Your task to perform on an android device: check data usage Image 0: 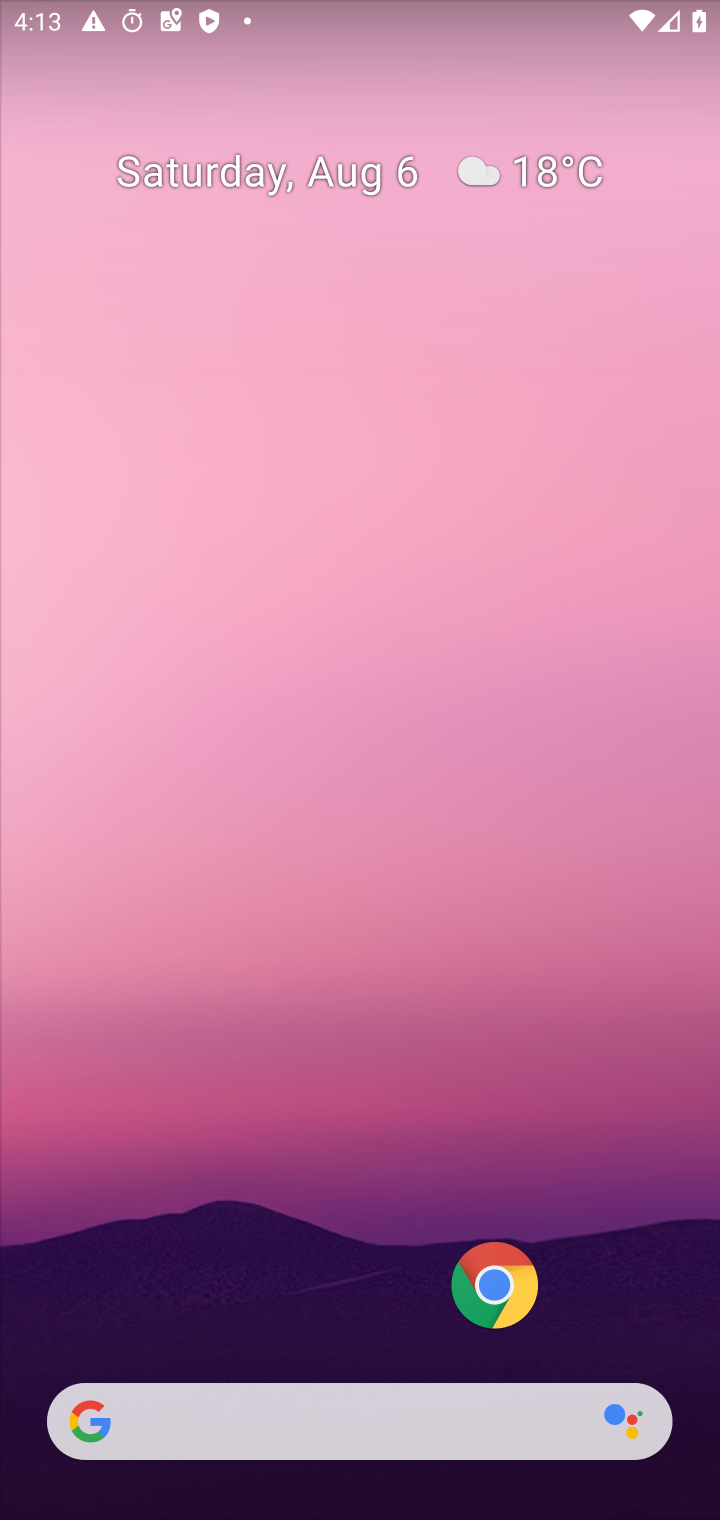
Step 0: drag from (312, 1330) to (200, 24)
Your task to perform on an android device: check data usage Image 1: 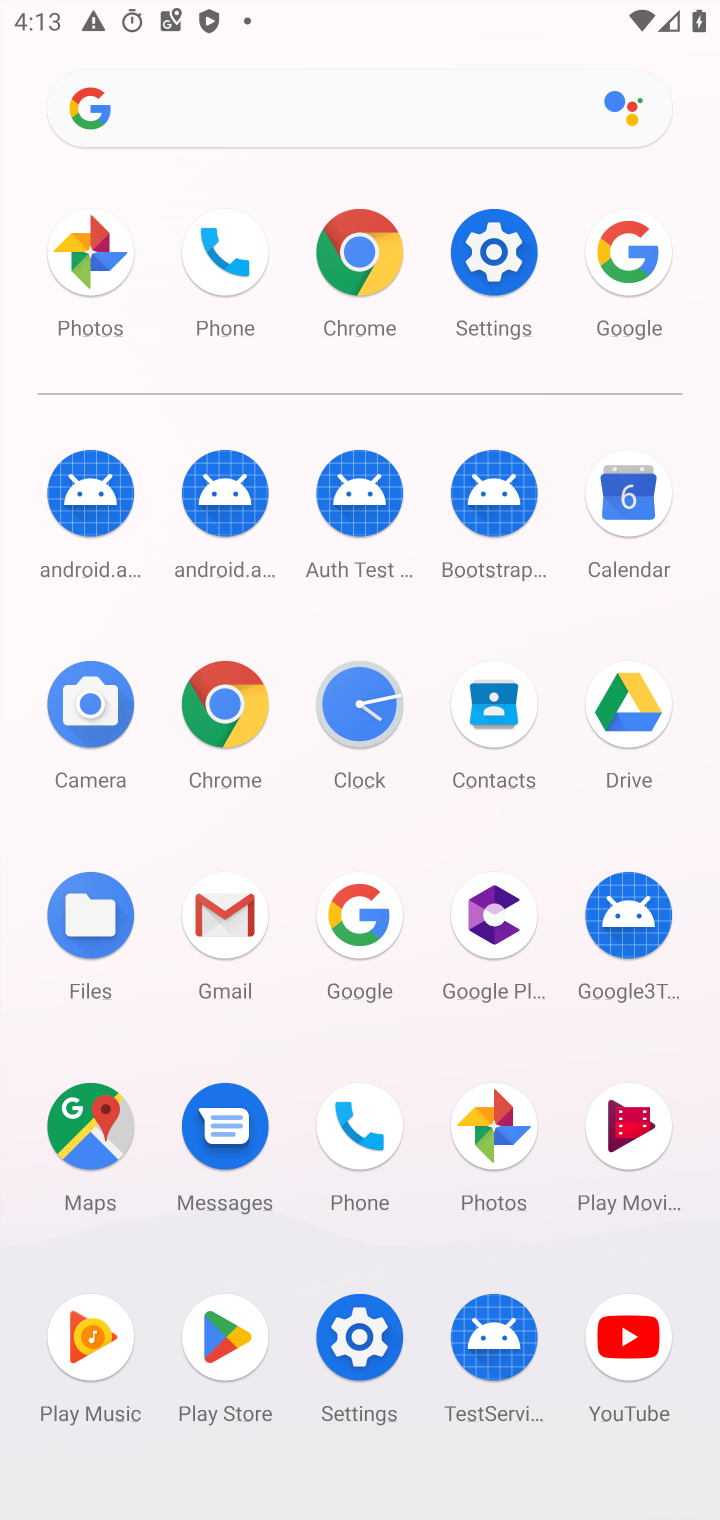
Step 1: click (490, 248)
Your task to perform on an android device: check data usage Image 2: 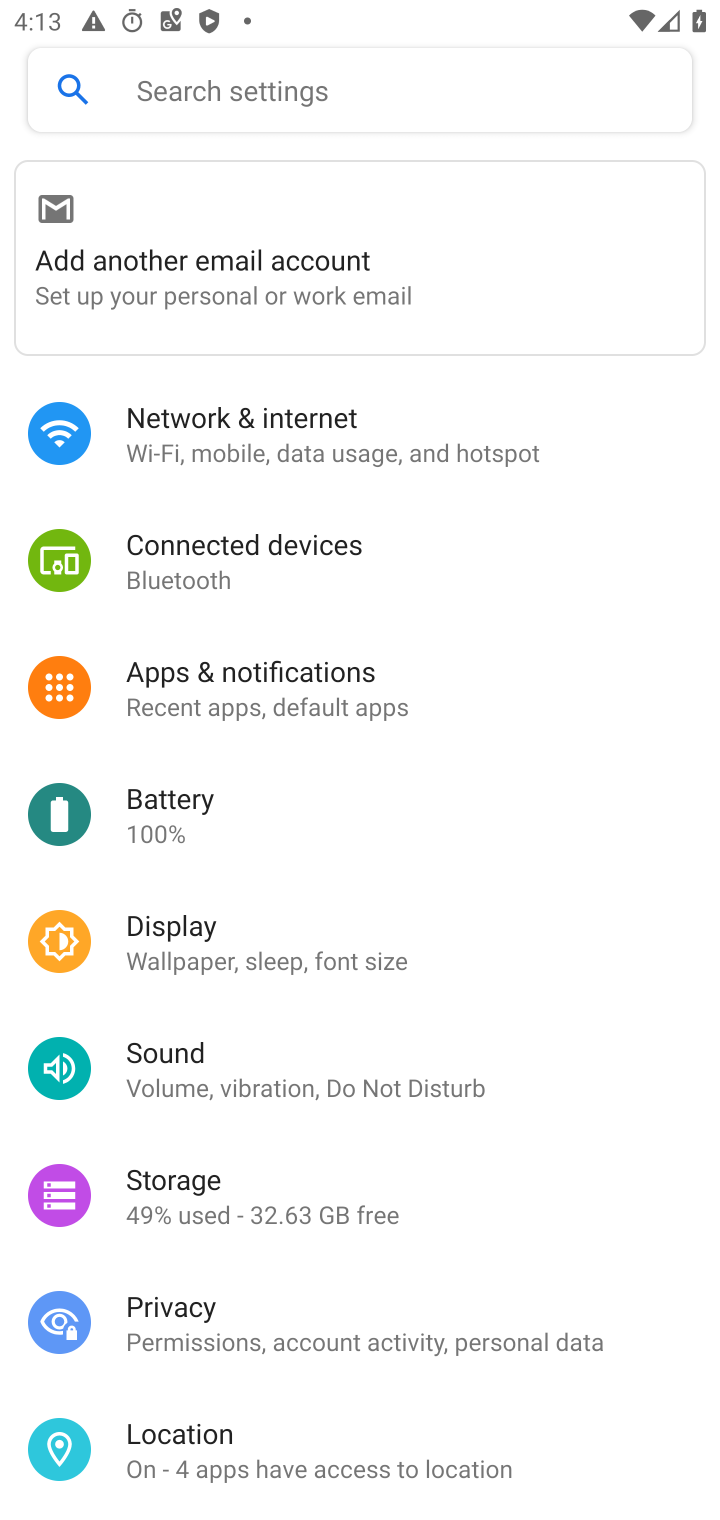
Step 2: click (271, 444)
Your task to perform on an android device: check data usage Image 3: 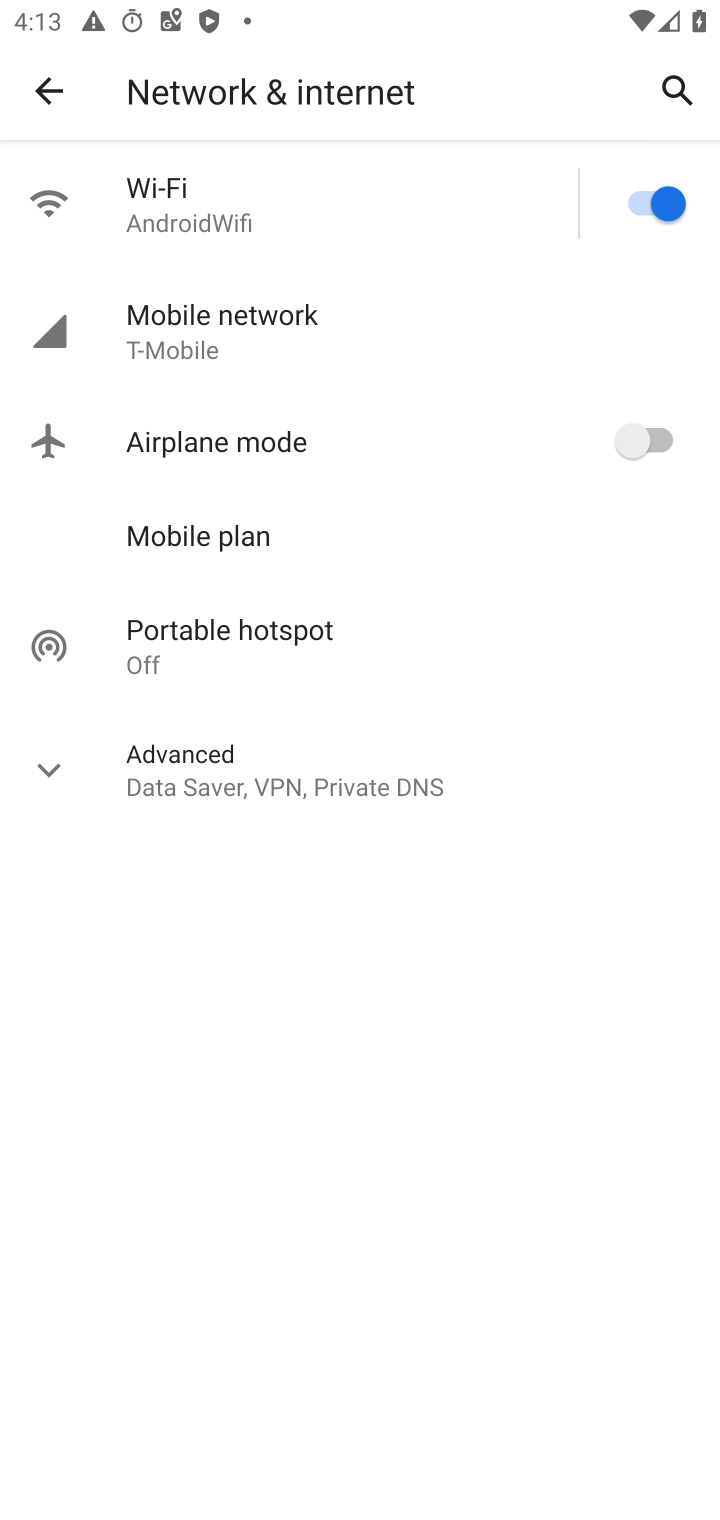
Step 3: click (240, 326)
Your task to perform on an android device: check data usage Image 4: 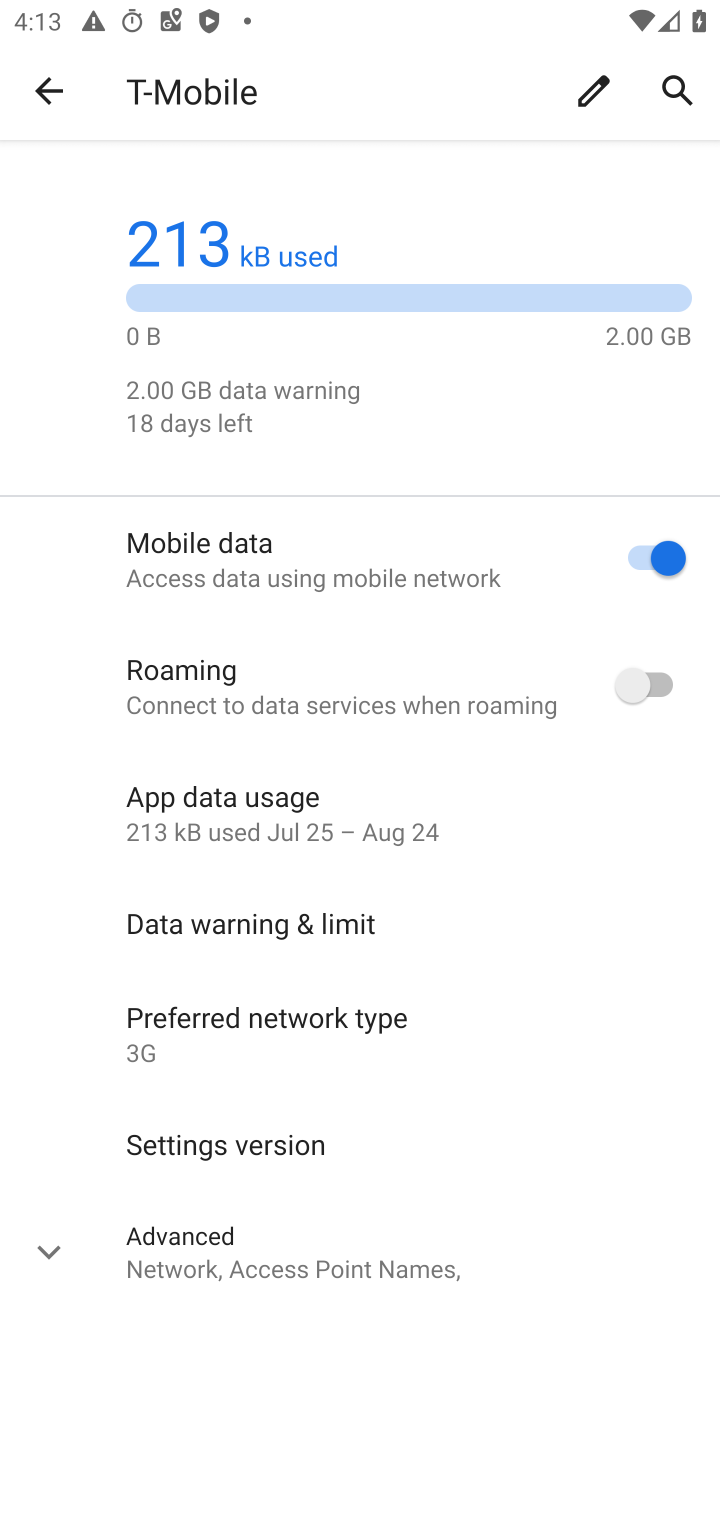
Step 4: click (312, 803)
Your task to perform on an android device: check data usage Image 5: 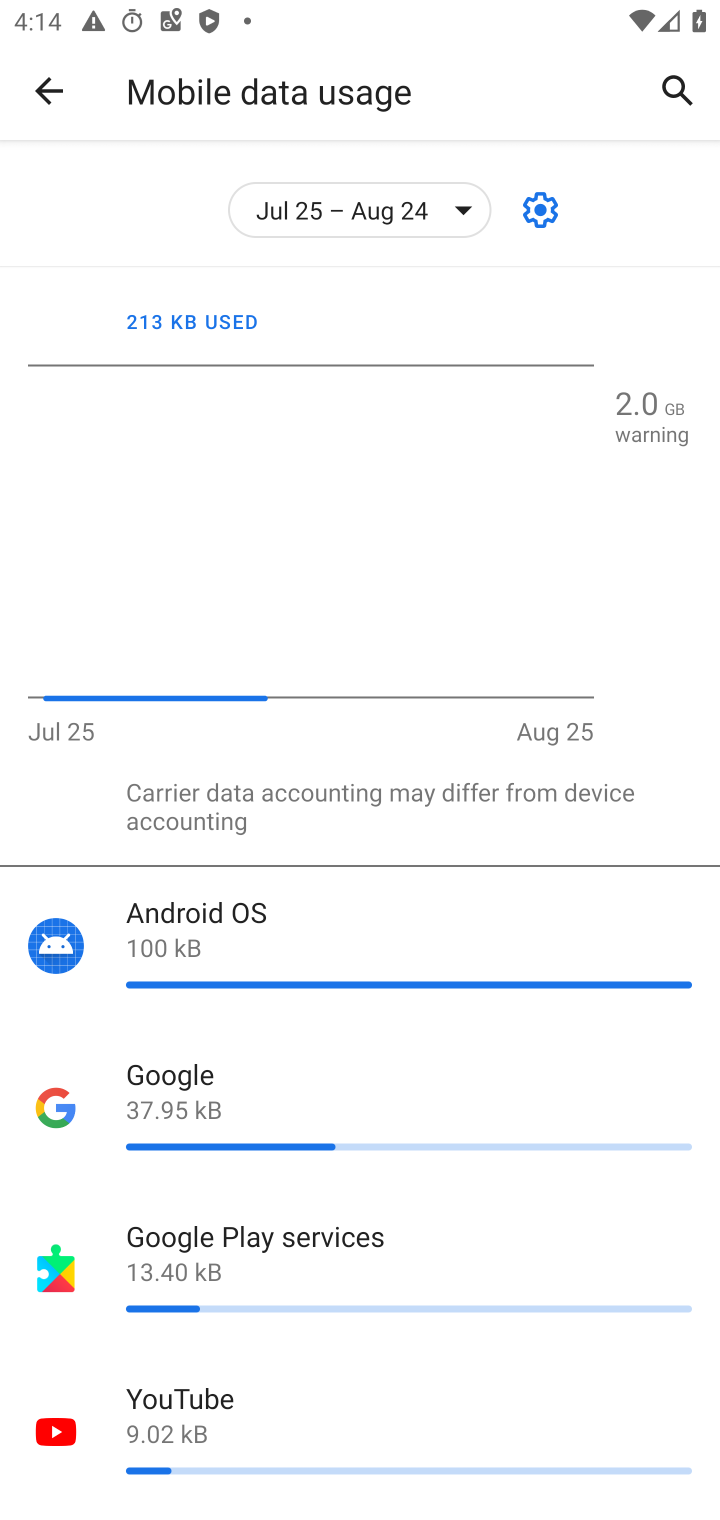
Step 5: task complete